Your task to perform on an android device: remove spam from my inbox in the gmail app Image 0: 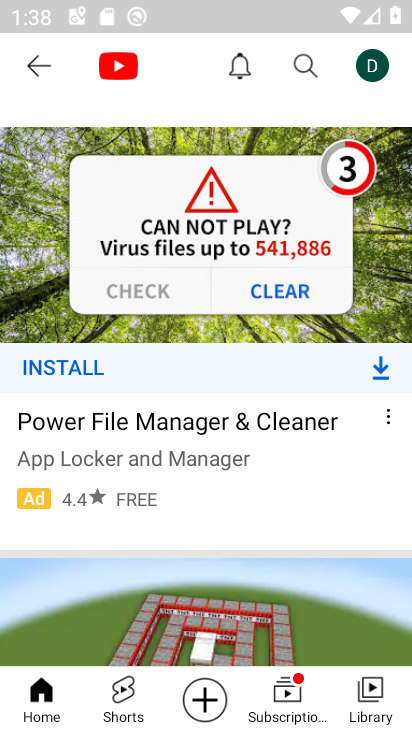
Step 0: press home button
Your task to perform on an android device: remove spam from my inbox in the gmail app Image 1: 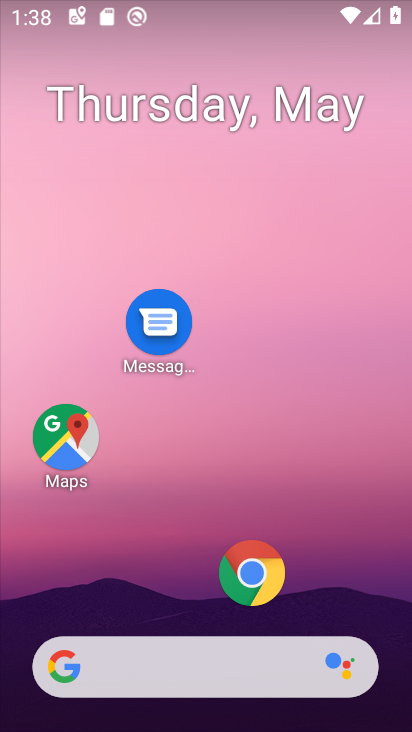
Step 1: drag from (178, 605) to (228, 272)
Your task to perform on an android device: remove spam from my inbox in the gmail app Image 2: 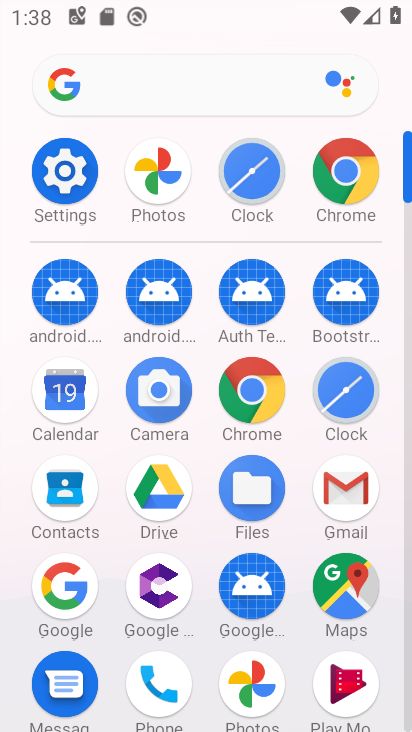
Step 2: click (343, 494)
Your task to perform on an android device: remove spam from my inbox in the gmail app Image 3: 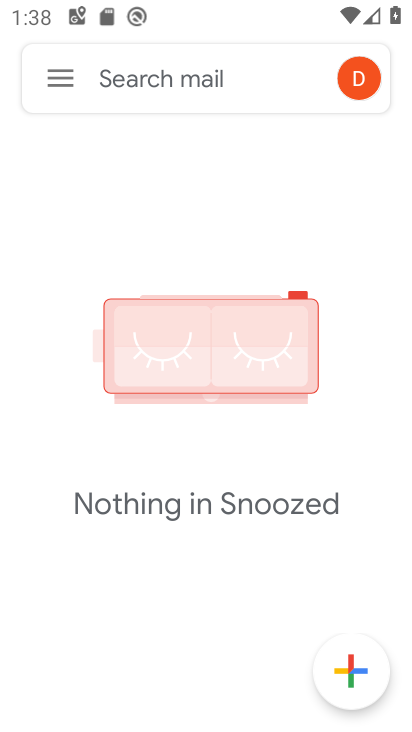
Step 3: click (49, 65)
Your task to perform on an android device: remove spam from my inbox in the gmail app Image 4: 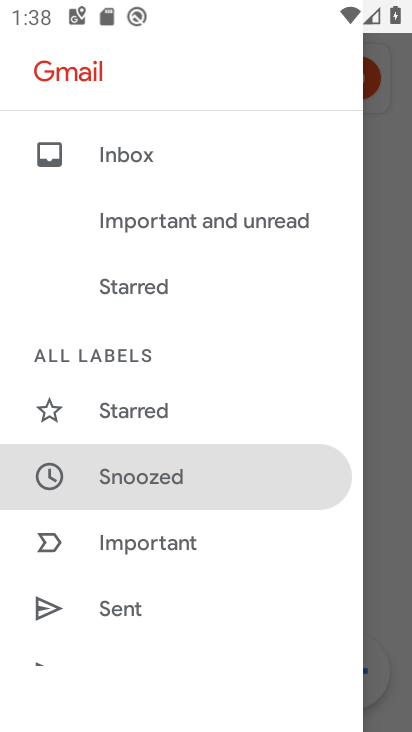
Step 4: drag from (165, 577) to (200, 240)
Your task to perform on an android device: remove spam from my inbox in the gmail app Image 5: 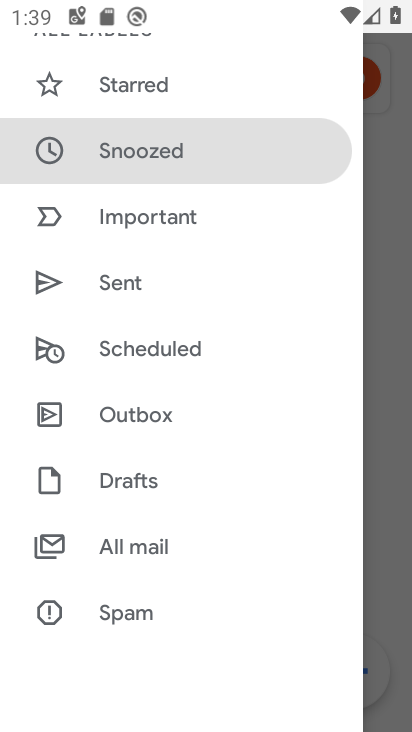
Step 5: drag from (159, 521) to (195, 277)
Your task to perform on an android device: remove spam from my inbox in the gmail app Image 6: 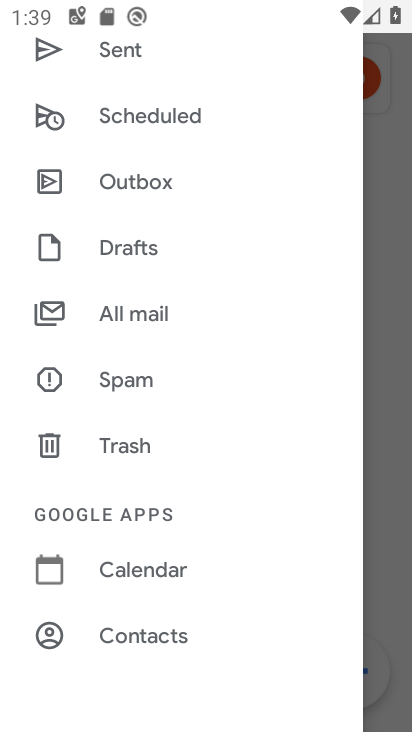
Step 6: click (130, 389)
Your task to perform on an android device: remove spam from my inbox in the gmail app Image 7: 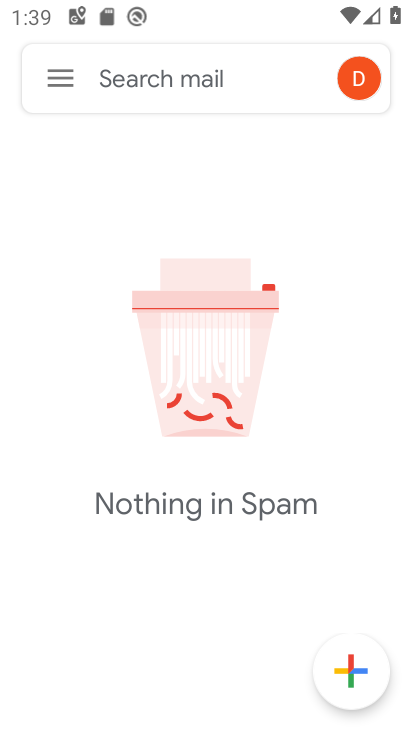
Step 7: task complete